Your task to perform on an android device: see tabs open on other devices in the chrome app Image 0: 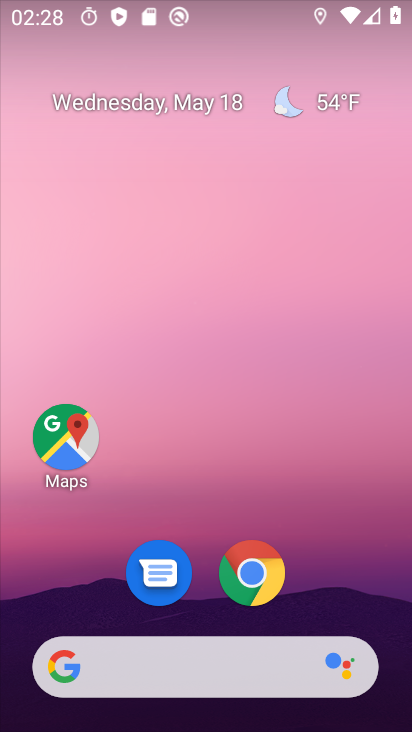
Step 0: click (252, 571)
Your task to perform on an android device: see tabs open on other devices in the chrome app Image 1: 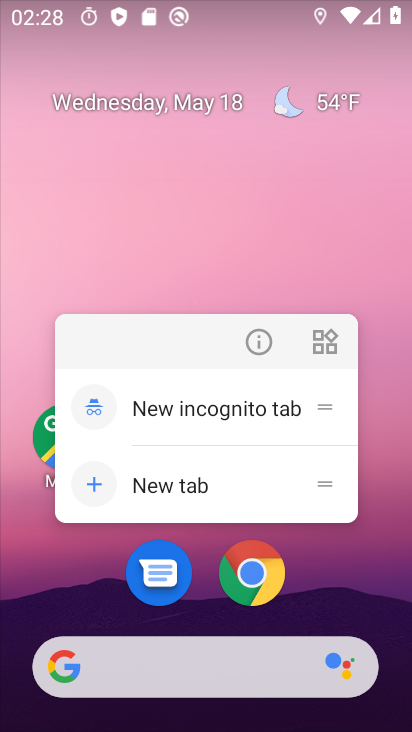
Step 1: click (250, 568)
Your task to perform on an android device: see tabs open on other devices in the chrome app Image 2: 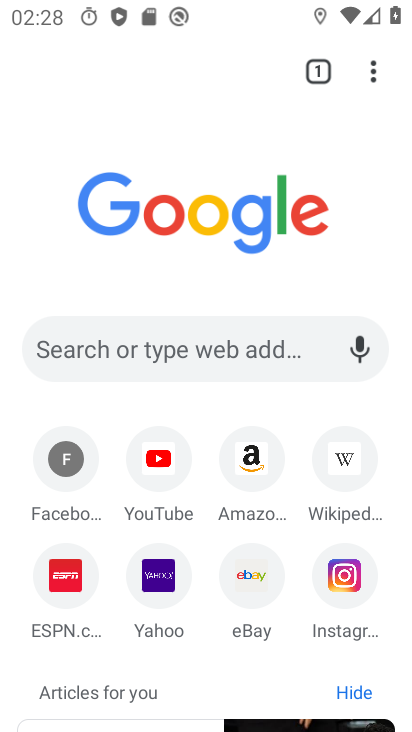
Step 2: task complete